Your task to perform on an android device: turn on bluetooth scan Image 0: 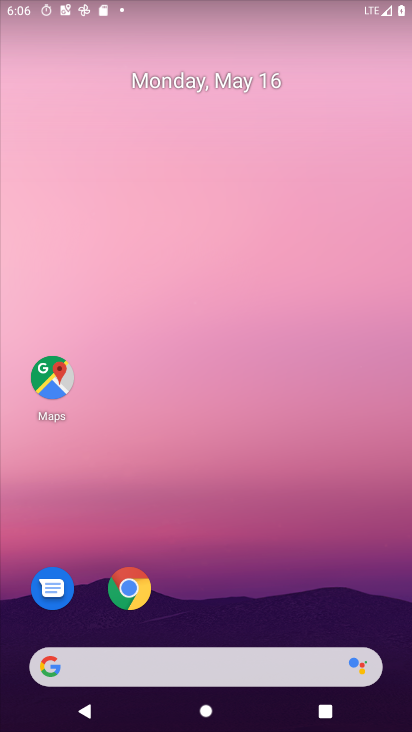
Step 0: drag from (253, 536) to (236, 55)
Your task to perform on an android device: turn on bluetooth scan Image 1: 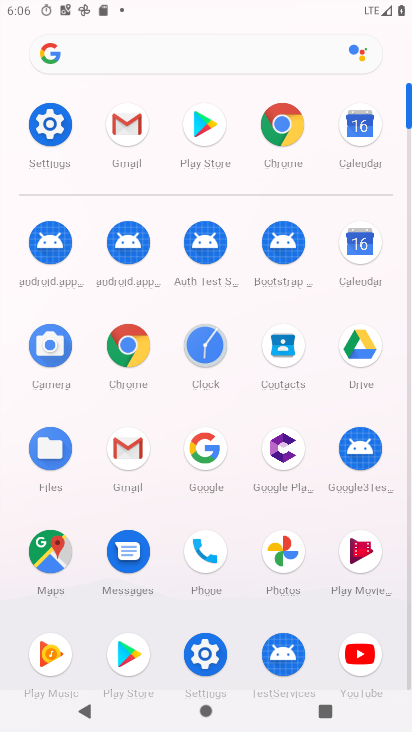
Step 1: click (40, 116)
Your task to perform on an android device: turn on bluetooth scan Image 2: 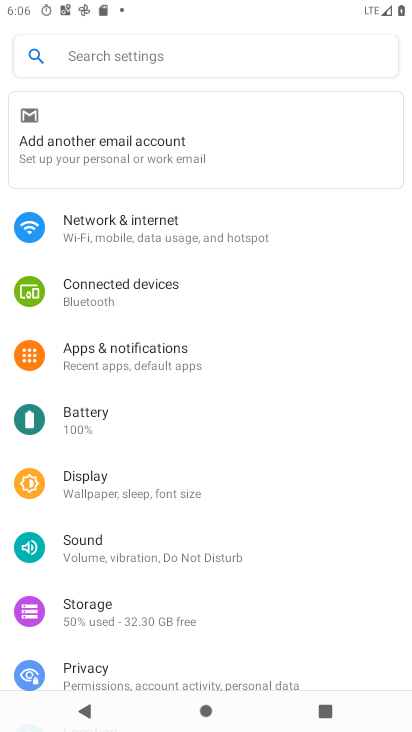
Step 2: drag from (190, 595) to (189, 73)
Your task to perform on an android device: turn on bluetooth scan Image 3: 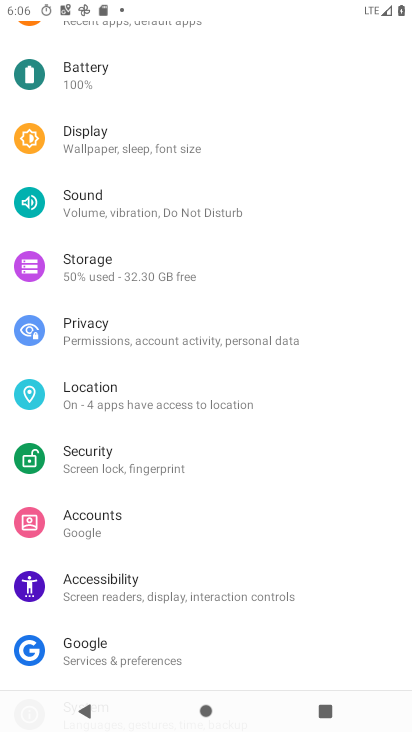
Step 3: click (179, 395)
Your task to perform on an android device: turn on bluetooth scan Image 4: 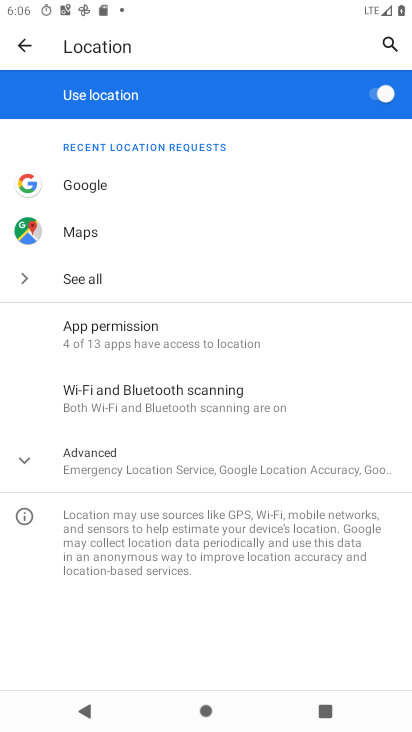
Step 4: click (197, 396)
Your task to perform on an android device: turn on bluetooth scan Image 5: 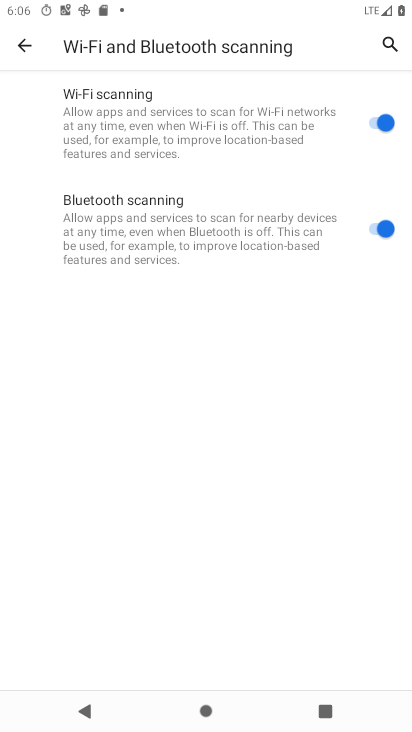
Step 5: task complete